Your task to perform on an android device: Check the news Image 0: 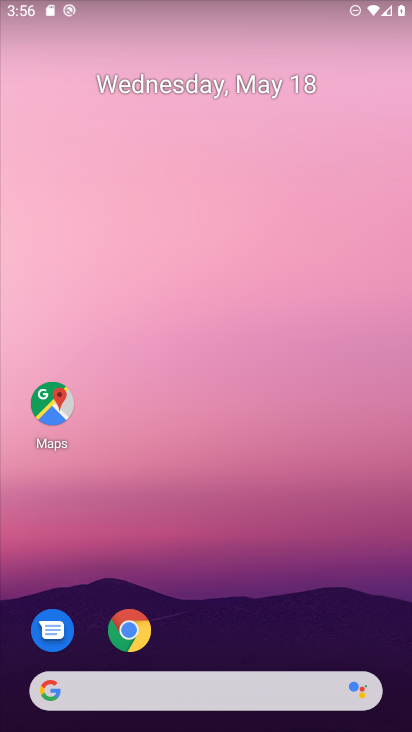
Step 0: press home button
Your task to perform on an android device: Check the news Image 1: 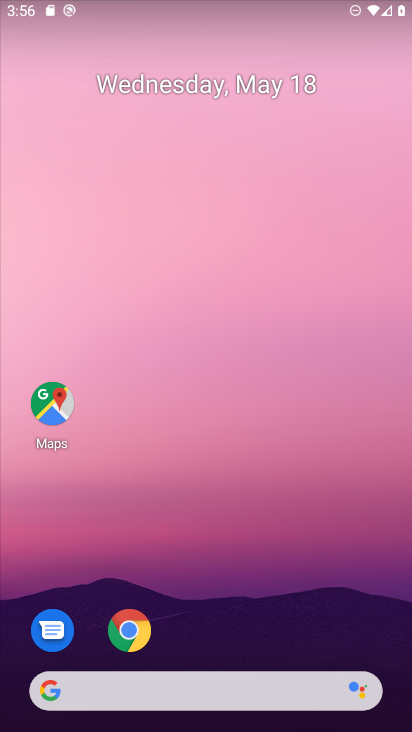
Step 1: drag from (212, 653) to (227, 136)
Your task to perform on an android device: Check the news Image 2: 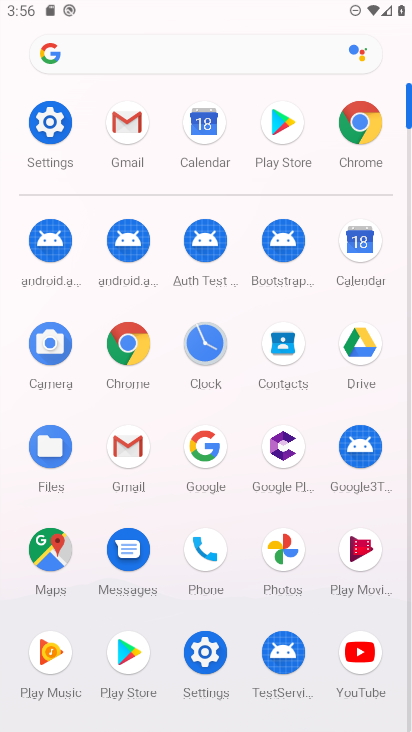
Step 2: press back button
Your task to perform on an android device: Check the news Image 3: 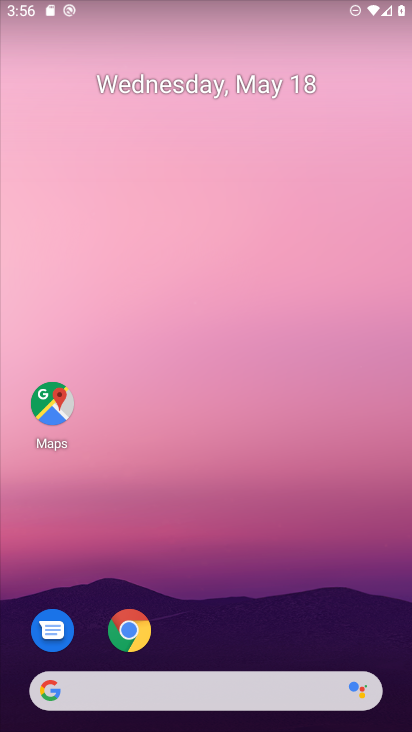
Step 3: drag from (17, 294) to (410, 327)
Your task to perform on an android device: Check the news Image 4: 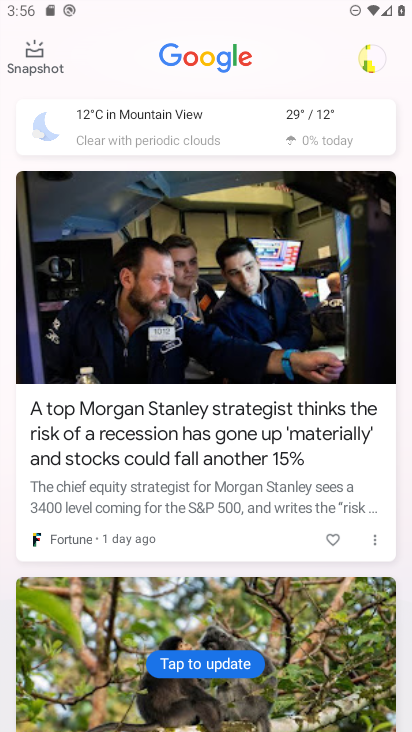
Step 4: drag from (168, 551) to (206, 208)
Your task to perform on an android device: Check the news Image 5: 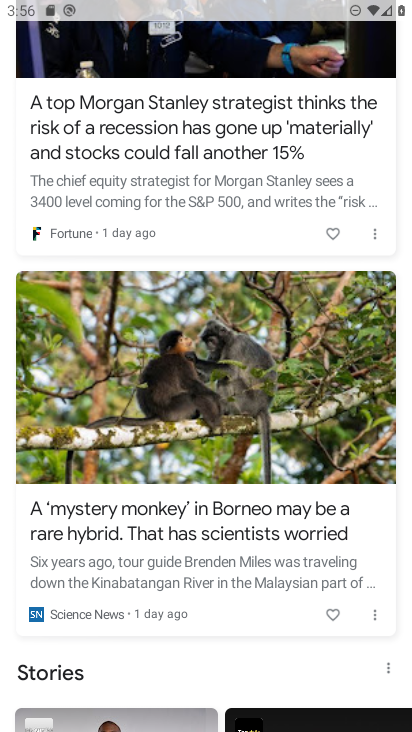
Step 5: drag from (193, 618) to (211, 159)
Your task to perform on an android device: Check the news Image 6: 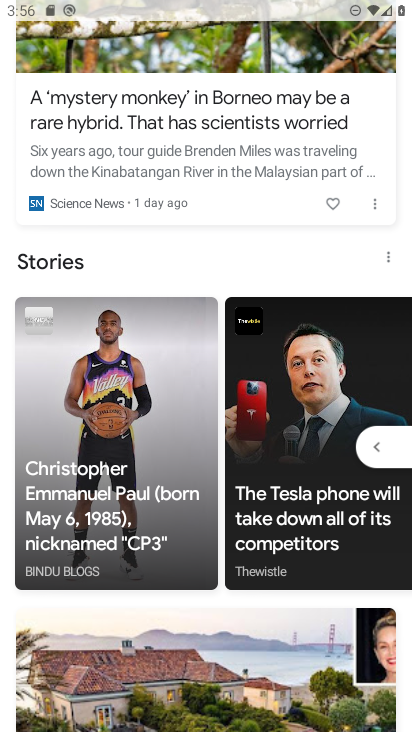
Step 6: drag from (224, 599) to (227, 203)
Your task to perform on an android device: Check the news Image 7: 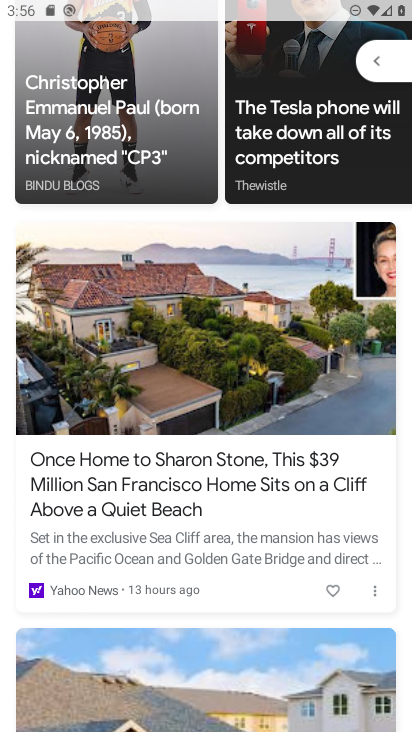
Step 7: drag from (221, 620) to (231, 204)
Your task to perform on an android device: Check the news Image 8: 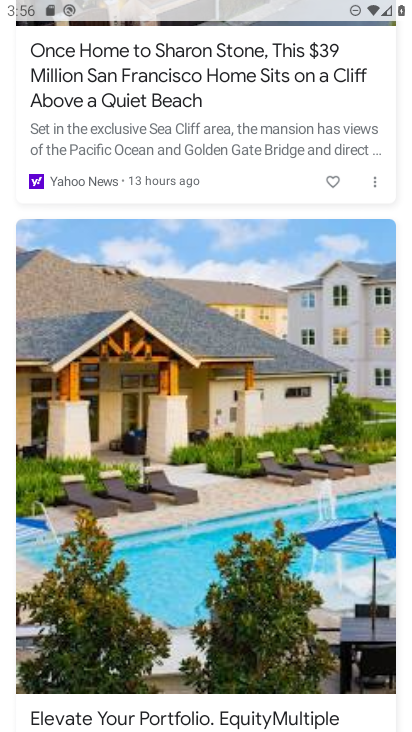
Step 8: click (231, 659)
Your task to perform on an android device: Check the news Image 9: 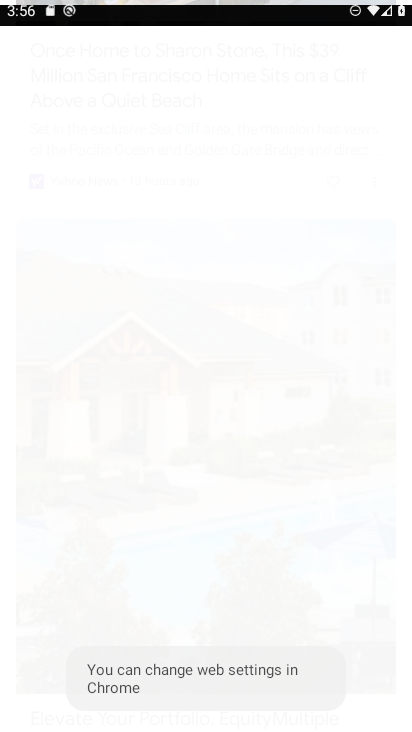
Step 9: task complete